Your task to perform on an android device: turn on wifi Image 0: 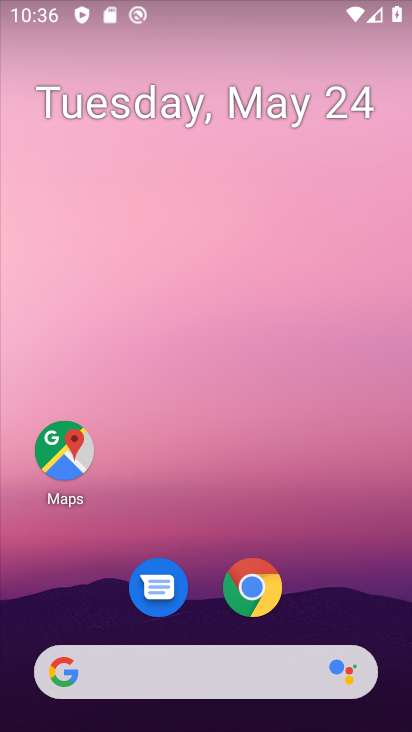
Step 0: drag from (187, 445) to (79, 10)
Your task to perform on an android device: turn on wifi Image 1: 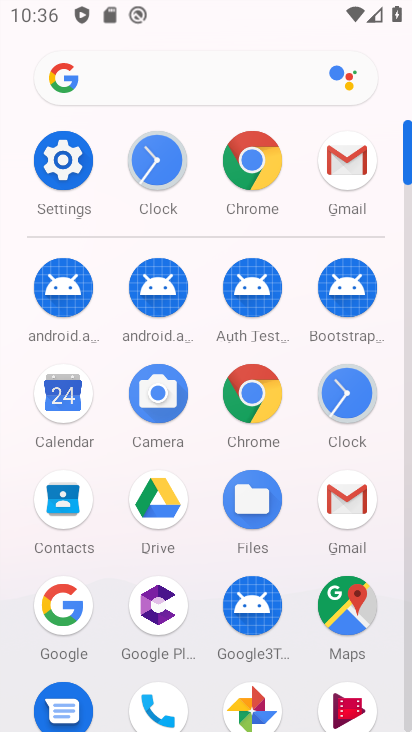
Step 1: task complete